Your task to perform on an android device: Open Google Maps and go to "Timeline" Image 0: 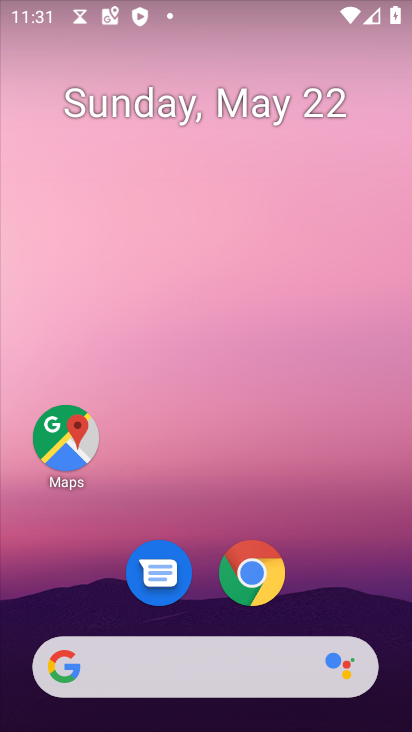
Step 0: press home button
Your task to perform on an android device: Open Google Maps and go to "Timeline" Image 1: 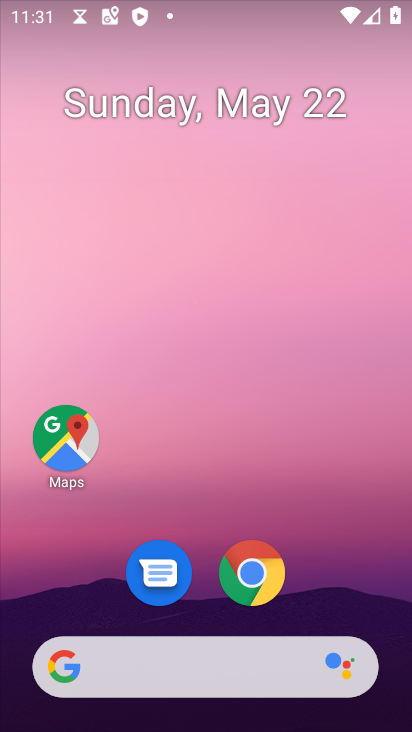
Step 1: click (68, 448)
Your task to perform on an android device: Open Google Maps and go to "Timeline" Image 2: 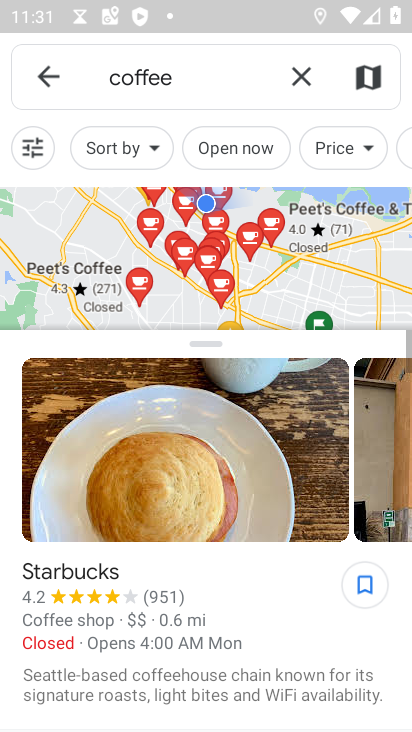
Step 2: click (53, 76)
Your task to perform on an android device: Open Google Maps and go to "Timeline" Image 3: 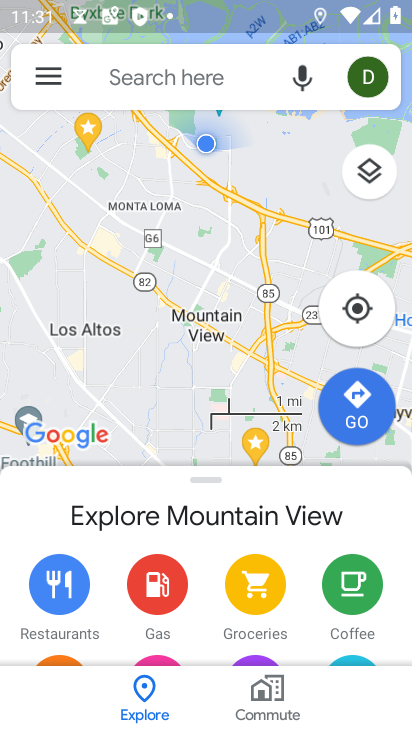
Step 3: click (53, 76)
Your task to perform on an android device: Open Google Maps and go to "Timeline" Image 4: 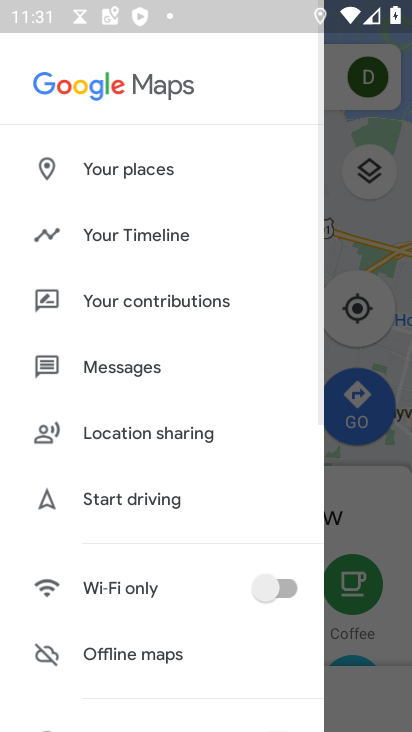
Step 4: click (158, 230)
Your task to perform on an android device: Open Google Maps and go to "Timeline" Image 5: 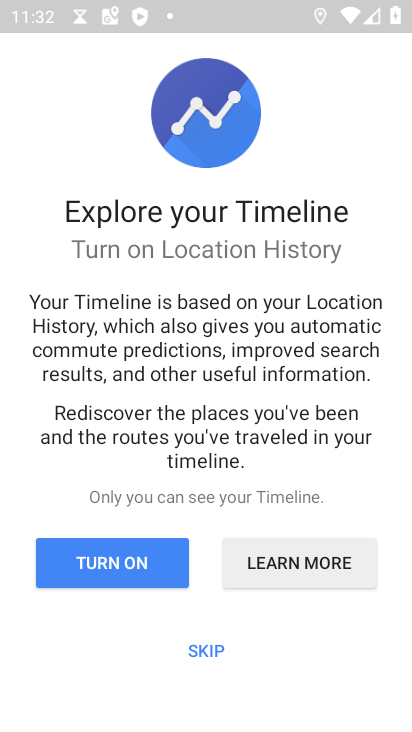
Step 5: click (208, 653)
Your task to perform on an android device: Open Google Maps and go to "Timeline" Image 6: 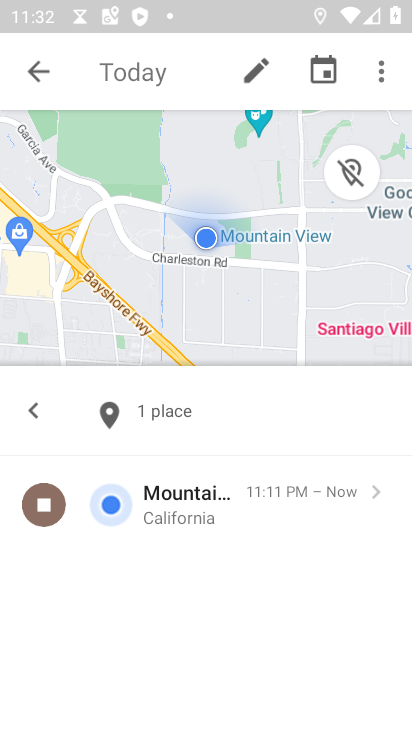
Step 6: task complete